Your task to perform on an android device: Show the shopping cart on amazon.com. Search for razer blade on amazon.com, select the first entry, and add it to the cart. Image 0: 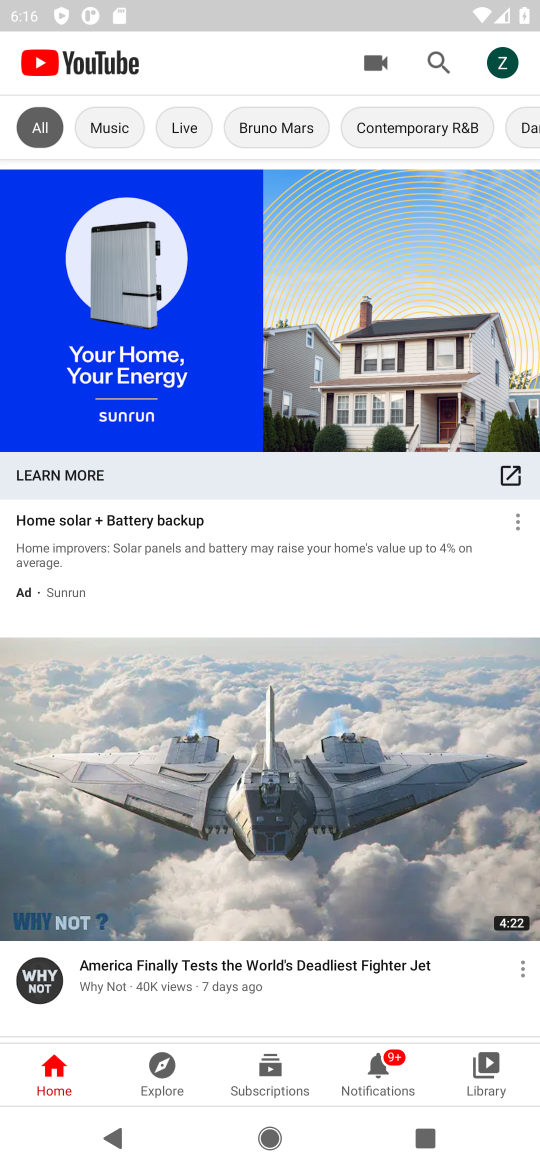
Step 0: press home button
Your task to perform on an android device: Show the shopping cart on amazon.com. Search for razer blade on amazon.com, select the first entry, and add it to the cart. Image 1: 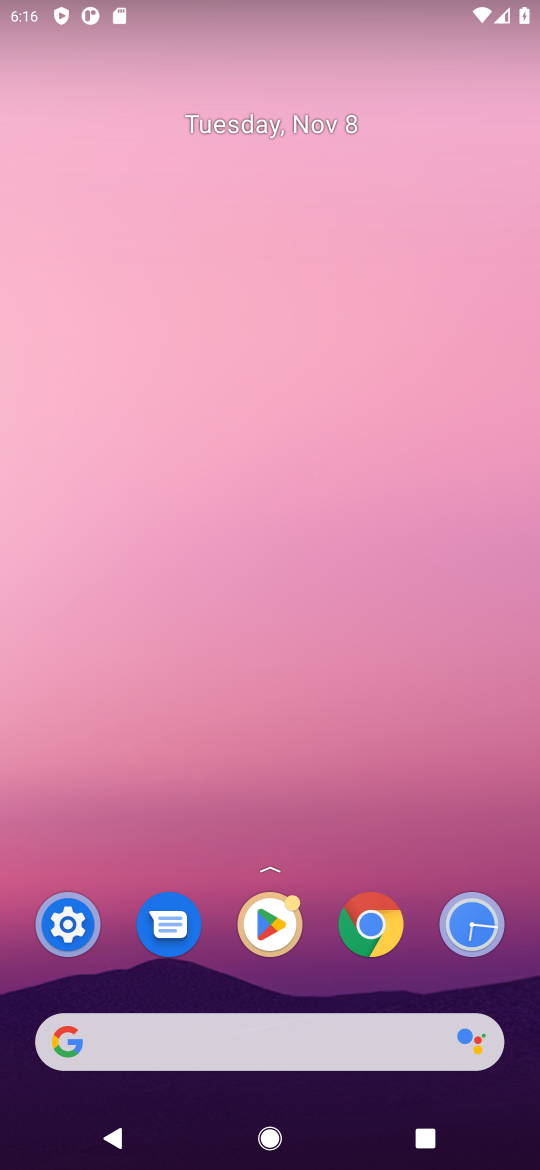
Step 1: click (234, 1031)
Your task to perform on an android device: Show the shopping cart on amazon.com. Search for razer blade on amazon.com, select the first entry, and add it to the cart. Image 2: 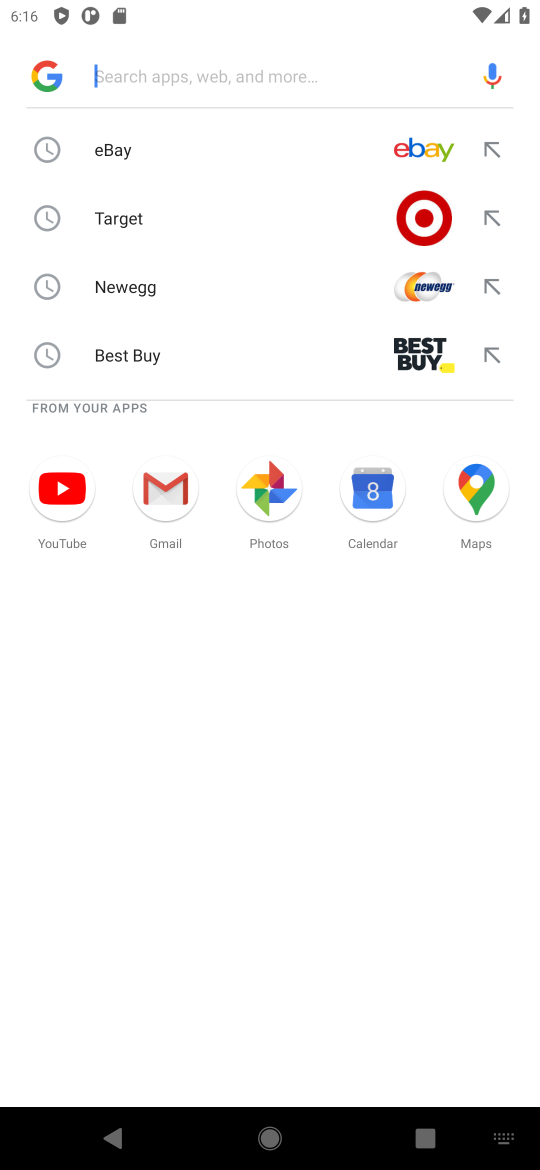
Step 2: type "amazon.com"
Your task to perform on an android device: Show the shopping cart on amazon.com. Search for razer blade on amazon.com, select the first entry, and add it to the cart. Image 3: 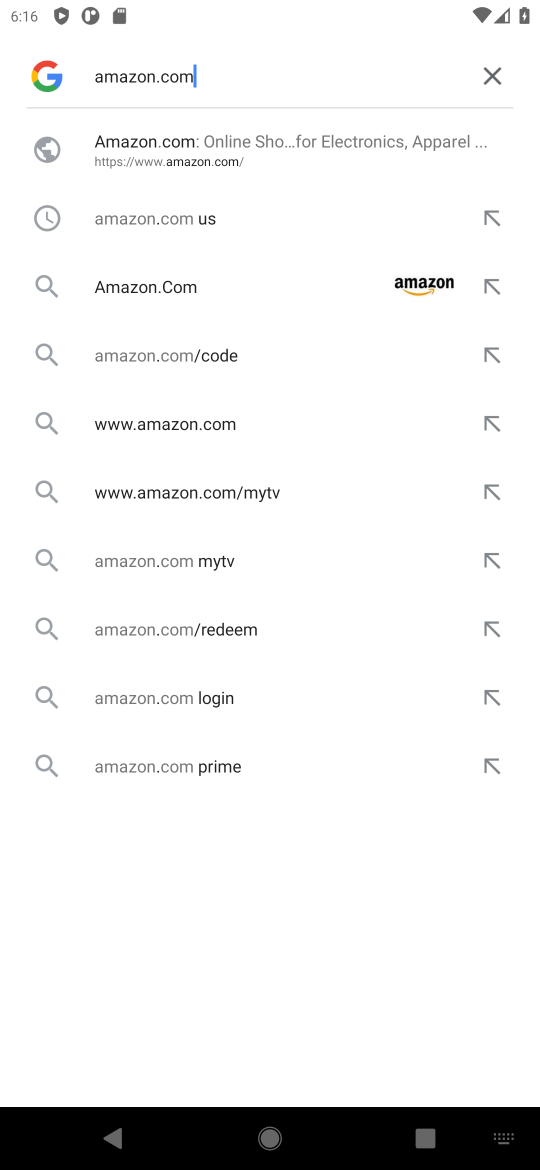
Step 3: click (170, 290)
Your task to perform on an android device: Show the shopping cart on amazon.com. Search for razer blade on amazon.com, select the first entry, and add it to the cart. Image 4: 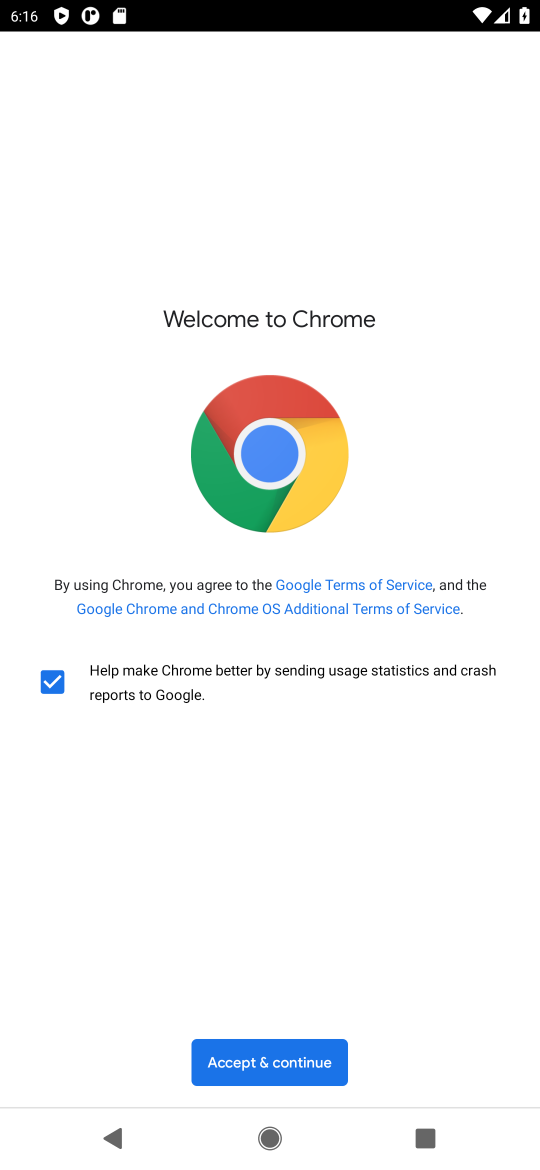
Step 4: click (239, 1065)
Your task to perform on an android device: Show the shopping cart on amazon.com. Search for razer blade on amazon.com, select the first entry, and add it to the cart. Image 5: 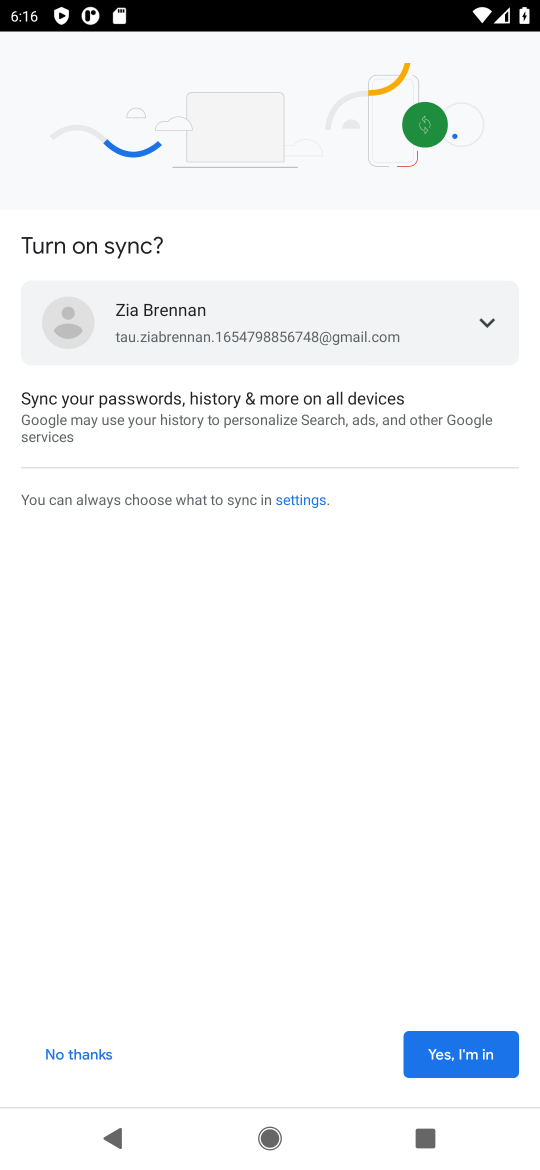
Step 5: click (424, 1054)
Your task to perform on an android device: Show the shopping cart on amazon.com. Search for razer blade on amazon.com, select the first entry, and add it to the cart. Image 6: 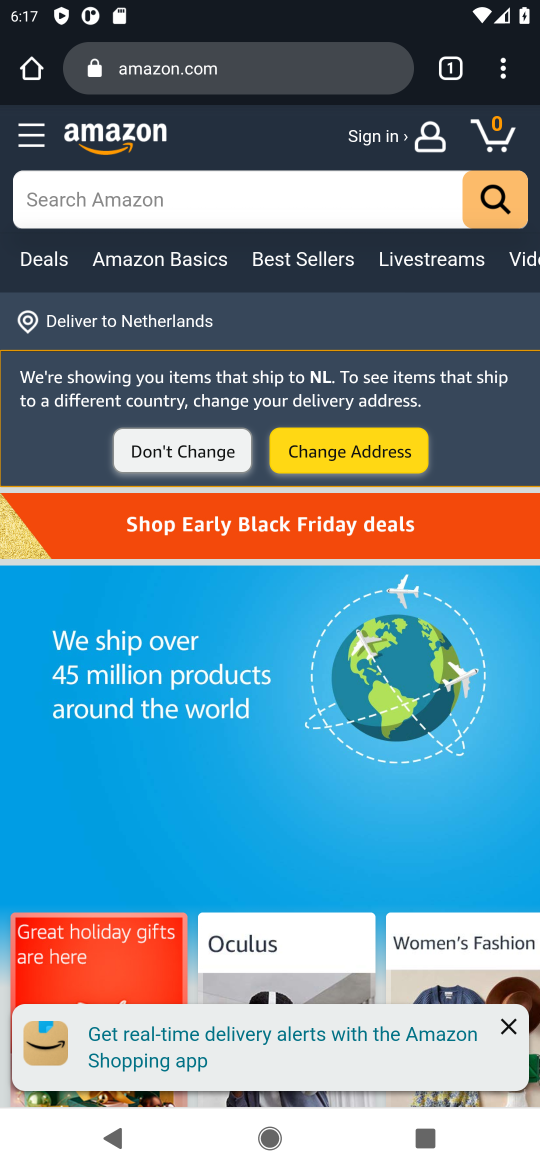
Step 6: click (108, 198)
Your task to perform on an android device: Show the shopping cart on amazon.com. Search for razer blade on amazon.com, select the first entry, and add it to the cart. Image 7: 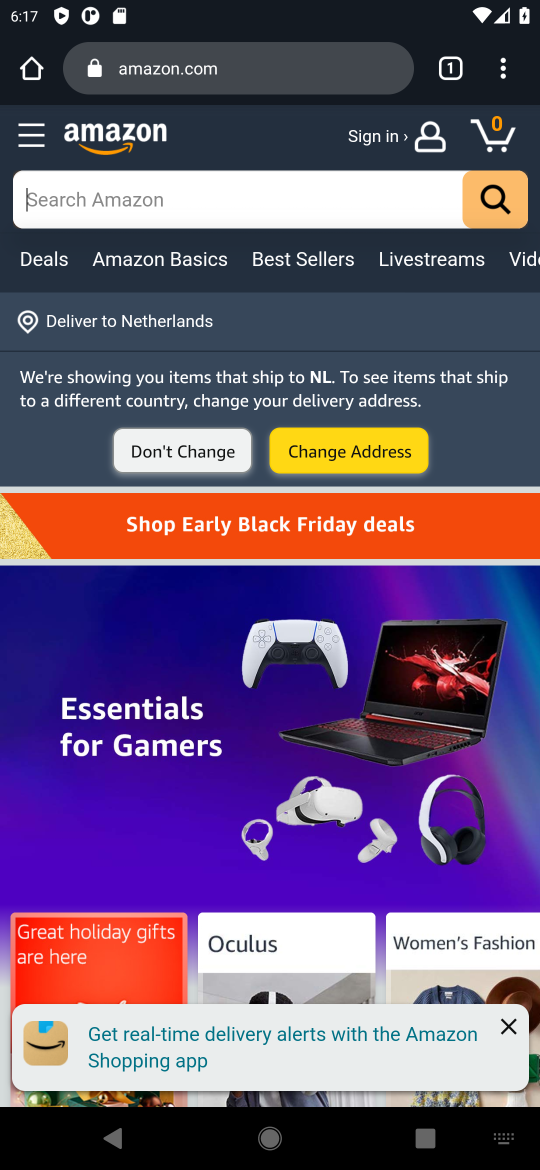
Step 7: type " razer blade"
Your task to perform on an android device: Show the shopping cart on amazon.com. Search for razer blade on amazon.com, select the first entry, and add it to the cart. Image 8: 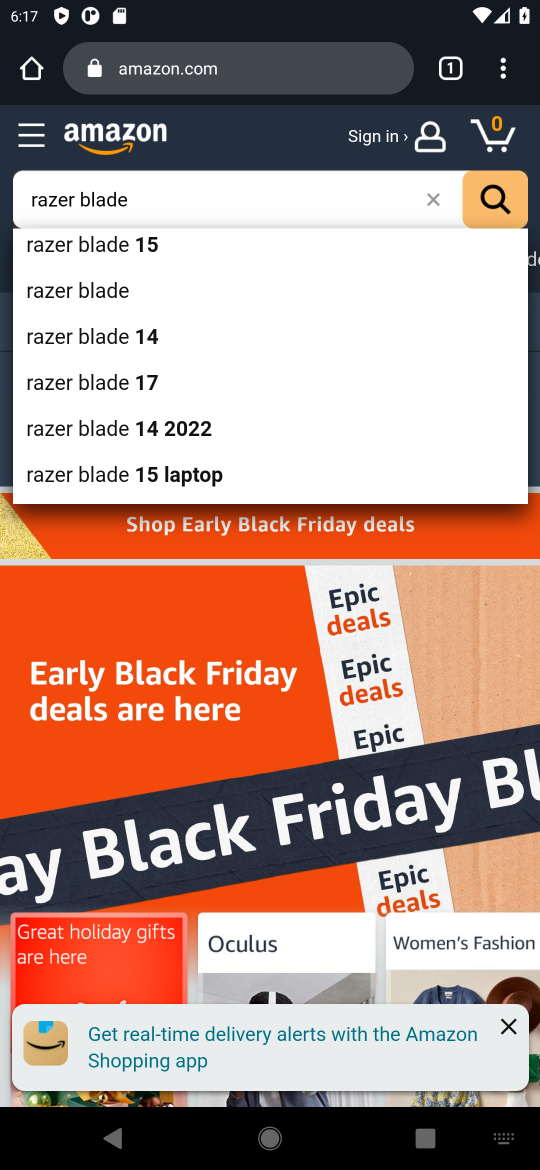
Step 8: click (80, 295)
Your task to perform on an android device: Show the shopping cart on amazon.com. Search for razer blade on amazon.com, select the first entry, and add it to the cart. Image 9: 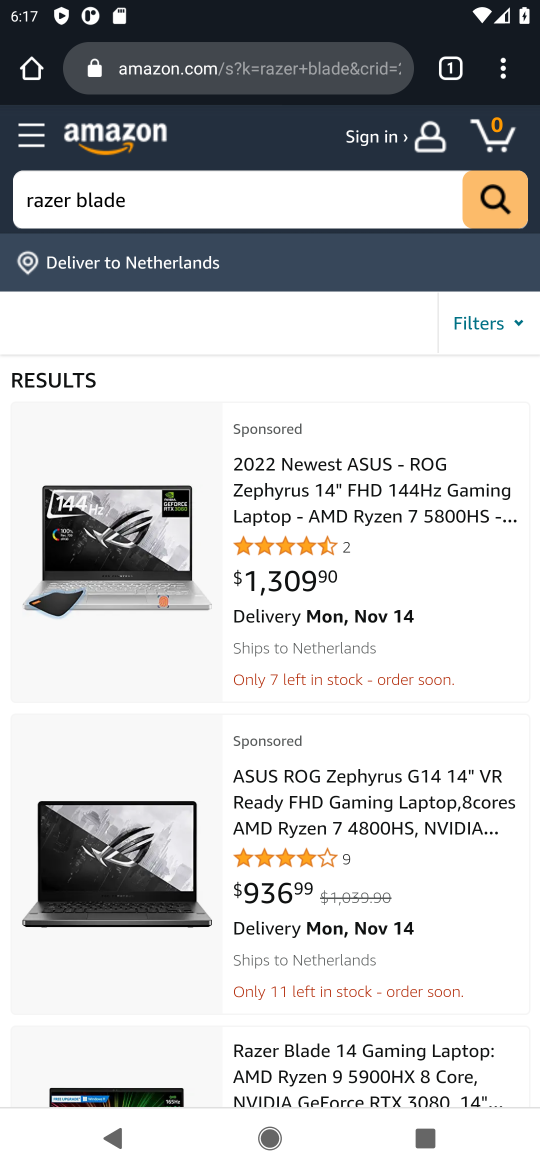
Step 9: click (271, 481)
Your task to perform on an android device: Show the shopping cart on amazon.com. Search for razer blade on amazon.com, select the first entry, and add it to the cart. Image 10: 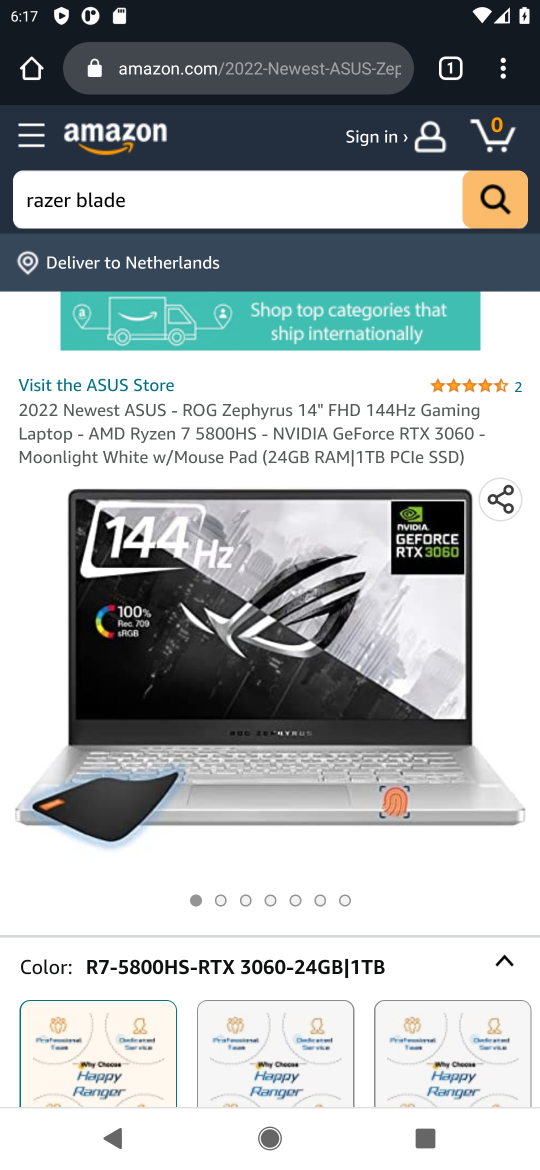
Step 10: drag from (239, 903) to (271, 228)
Your task to perform on an android device: Show the shopping cart on amazon.com. Search for razer blade on amazon.com, select the first entry, and add it to the cart. Image 11: 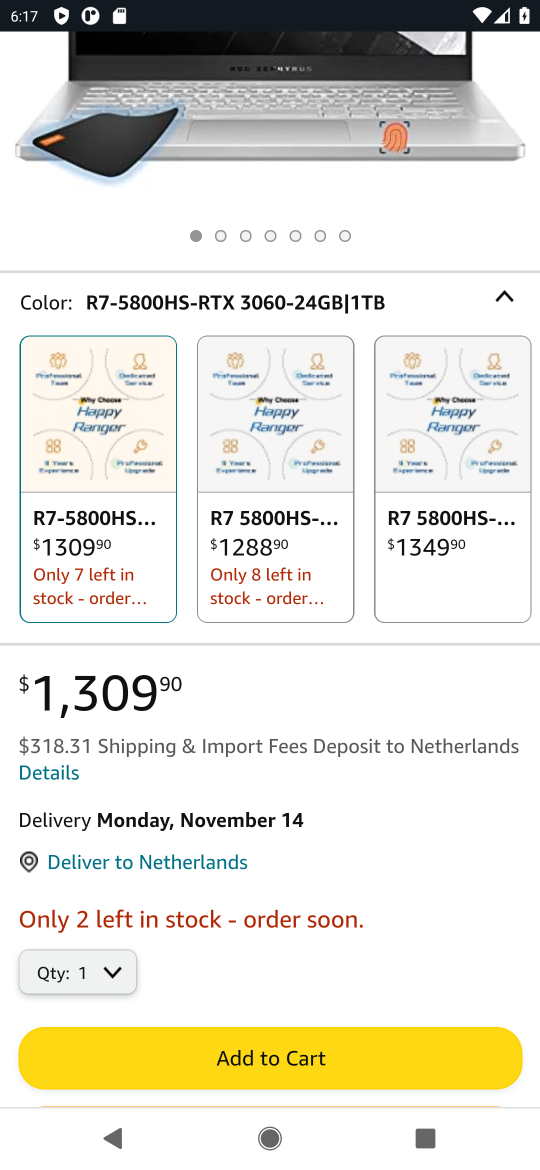
Step 11: drag from (142, 856) to (219, 617)
Your task to perform on an android device: Show the shopping cart on amazon.com. Search for razer blade on amazon.com, select the first entry, and add it to the cart. Image 12: 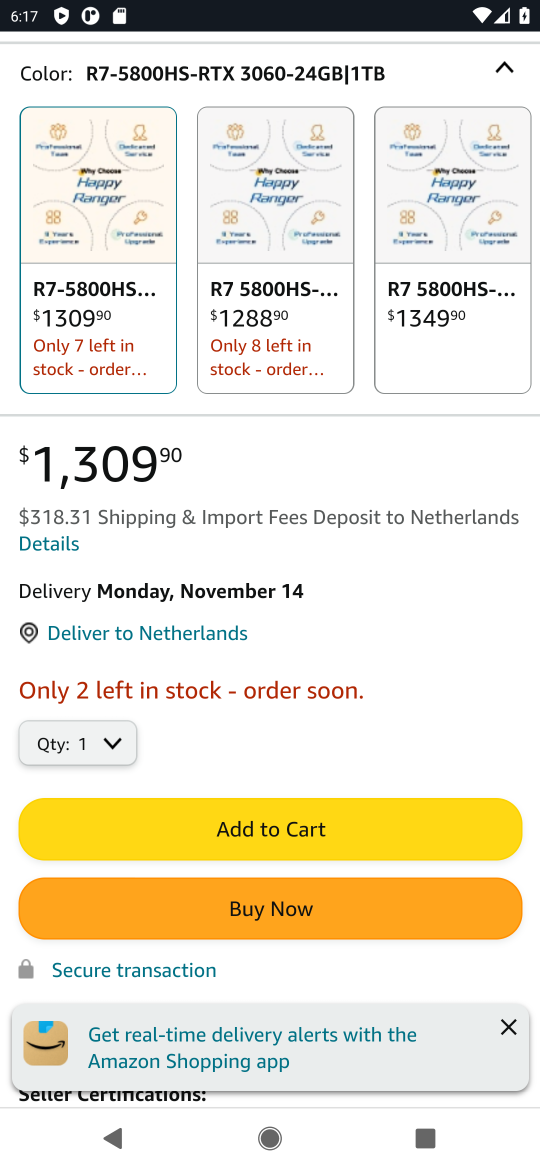
Step 12: click (280, 820)
Your task to perform on an android device: Show the shopping cart on amazon.com. Search for razer blade on amazon.com, select the first entry, and add it to the cart. Image 13: 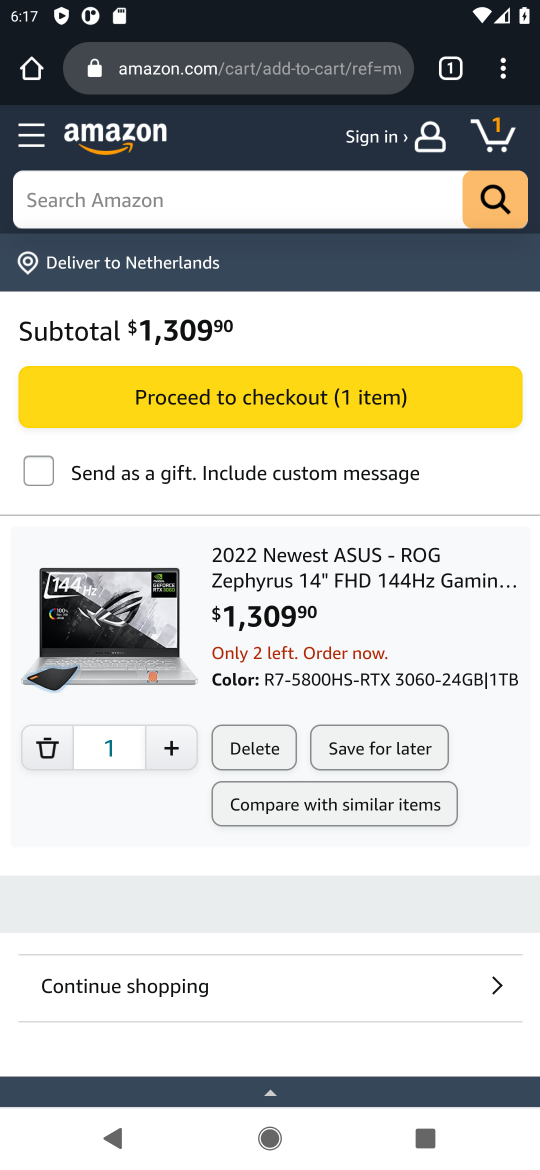
Step 13: task complete